Your task to perform on an android device: search for starred emails in the gmail app Image 0: 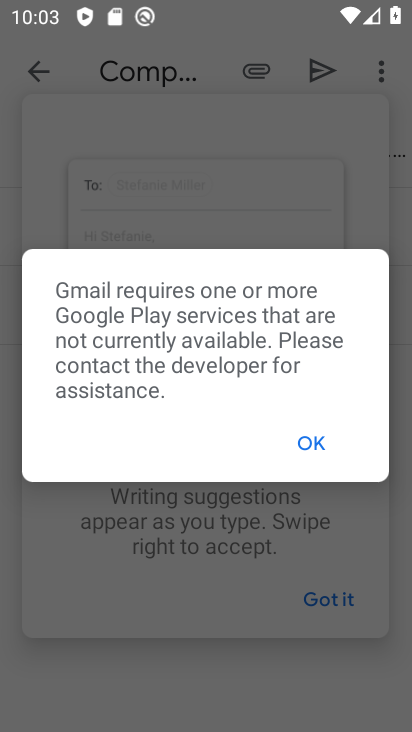
Step 0: click (304, 436)
Your task to perform on an android device: search for starred emails in the gmail app Image 1: 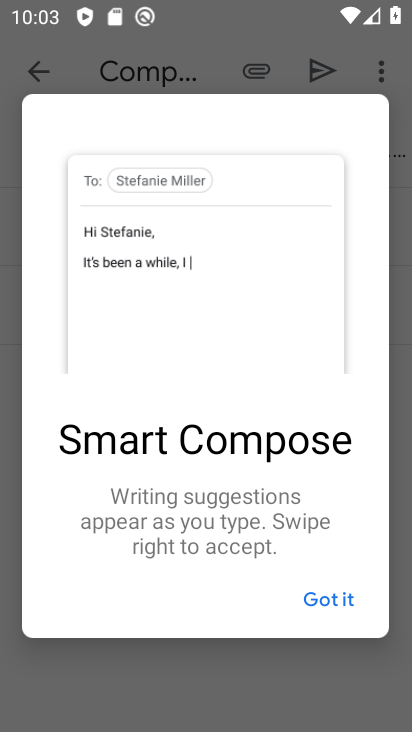
Step 1: press back button
Your task to perform on an android device: search for starred emails in the gmail app Image 2: 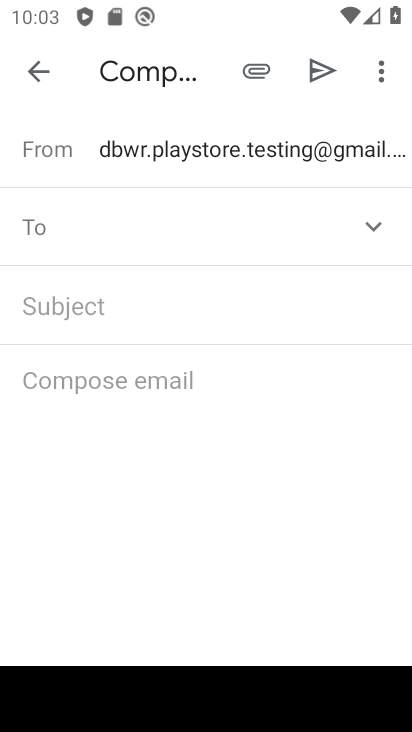
Step 2: press back button
Your task to perform on an android device: search for starred emails in the gmail app Image 3: 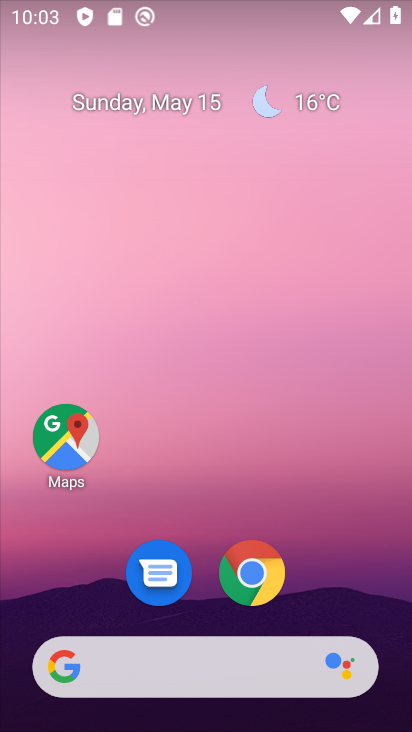
Step 3: click (244, 5)
Your task to perform on an android device: search for starred emails in the gmail app Image 4: 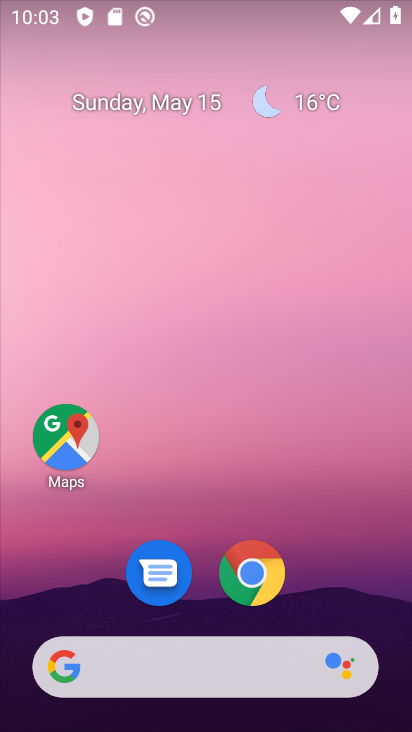
Step 4: drag from (312, 572) to (313, 207)
Your task to perform on an android device: search for starred emails in the gmail app Image 5: 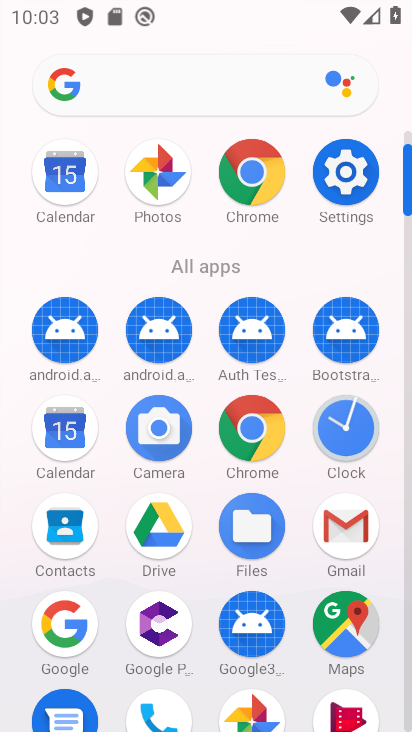
Step 5: click (343, 544)
Your task to perform on an android device: search for starred emails in the gmail app Image 6: 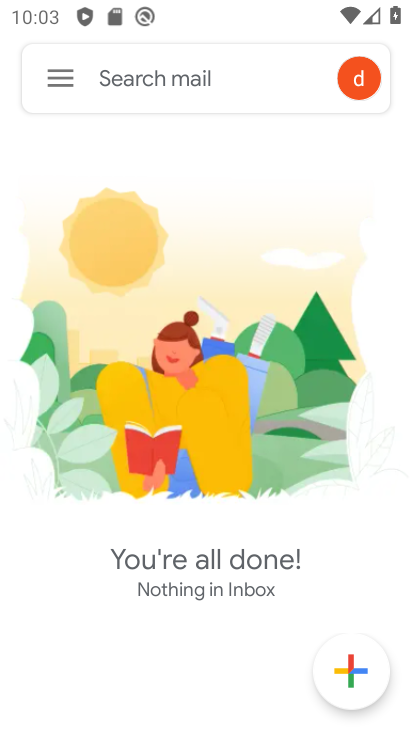
Step 6: click (55, 79)
Your task to perform on an android device: search for starred emails in the gmail app Image 7: 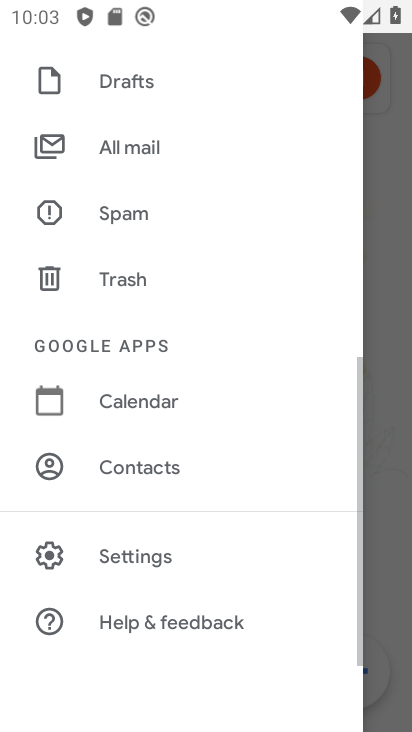
Step 7: drag from (179, 254) to (176, 660)
Your task to perform on an android device: search for starred emails in the gmail app Image 8: 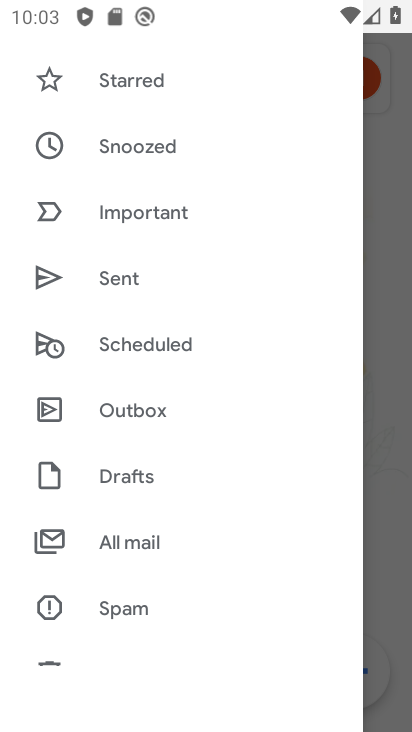
Step 8: drag from (196, 185) to (196, 498)
Your task to perform on an android device: search for starred emails in the gmail app Image 9: 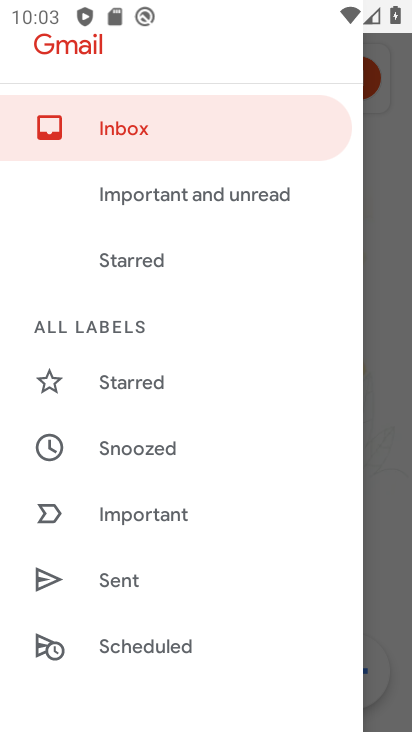
Step 9: click (152, 393)
Your task to perform on an android device: search for starred emails in the gmail app Image 10: 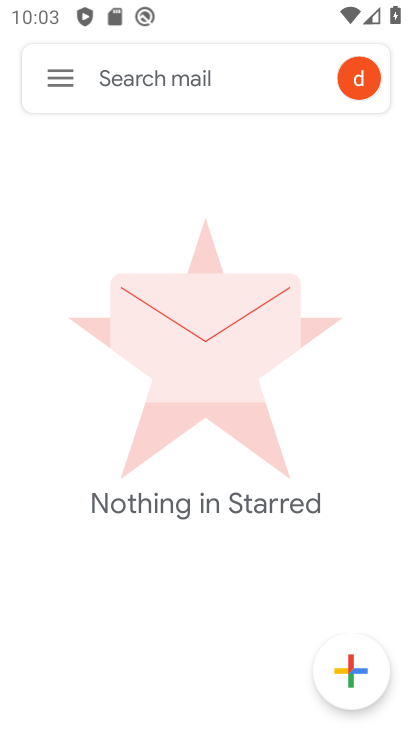
Step 10: task complete